Your task to perform on an android device: Go to location settings Image 0: 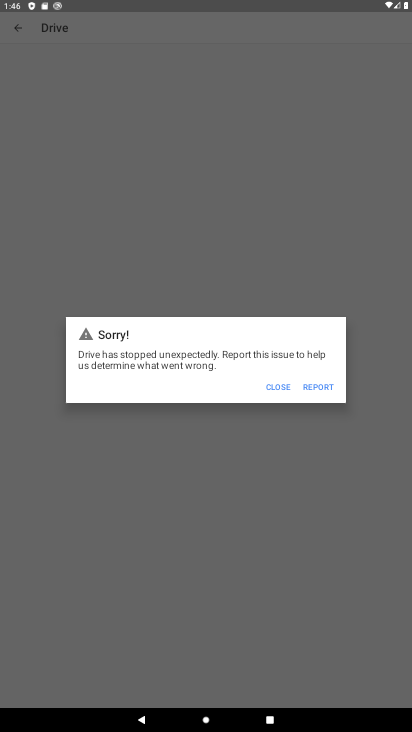
Step 0: press home button
Your task to perform on an android device: Go to location settings Image 1: 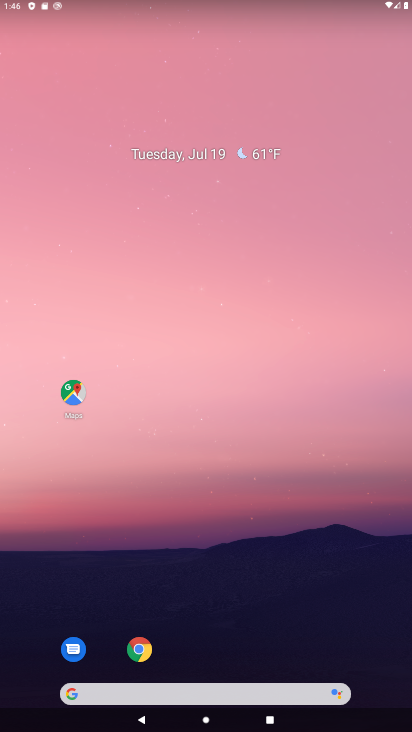
Step 1: drag from (338, 618) to (276, 12)
Your task to perform on an android device: Go to location settings Image 2: 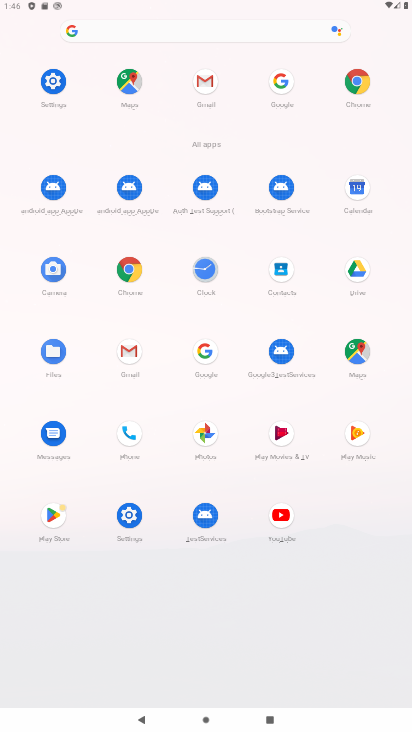
Step 2: click (136, 507)
Your task to perform on an android device: Go to location settings Image 3: 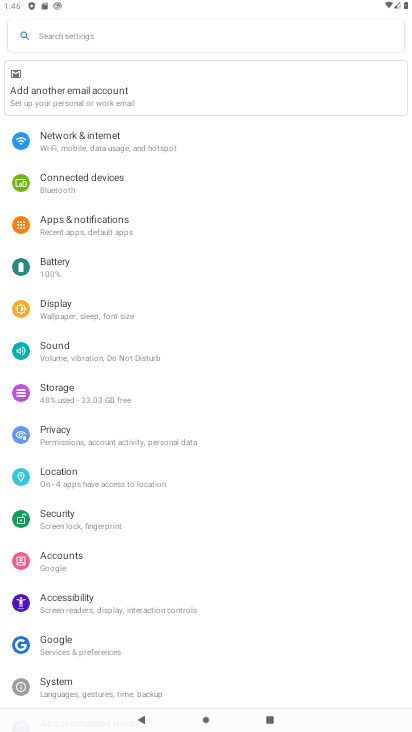
Step 3: click (71, 474)
Your task to perform on an android device: Go to location settings Image 4: 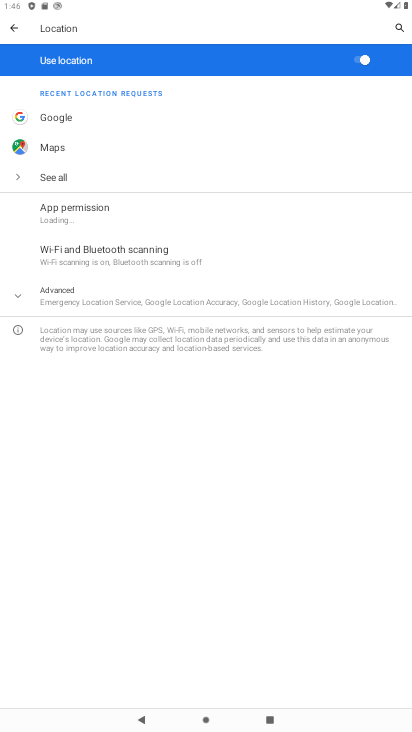
Step 4: task complete